Your task to perform on an android device: open the mobile data screen to see how much data has been used Image 0: 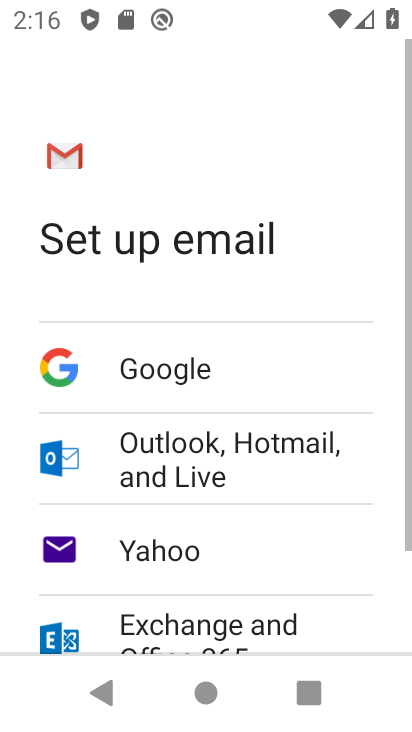
Step 0: press back button
Your task to perform on an android device: open the mobile data screen to see how much data has been used Image 1: 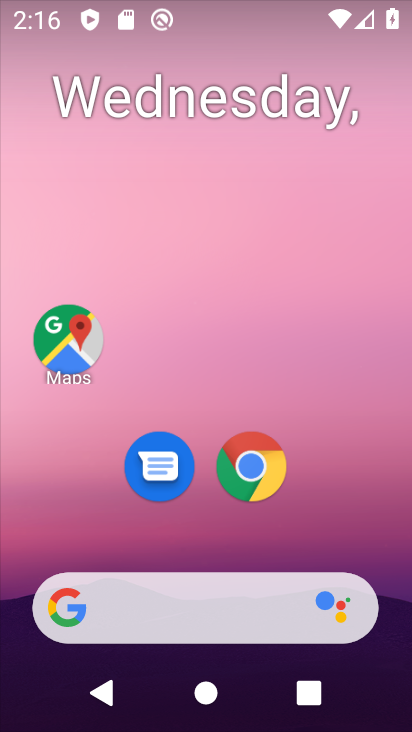
Step 1: drag from (384, 575) to (233, 8)
Your task to perform on an android device: open the mobile data screen to see how much data has been used Image 2: 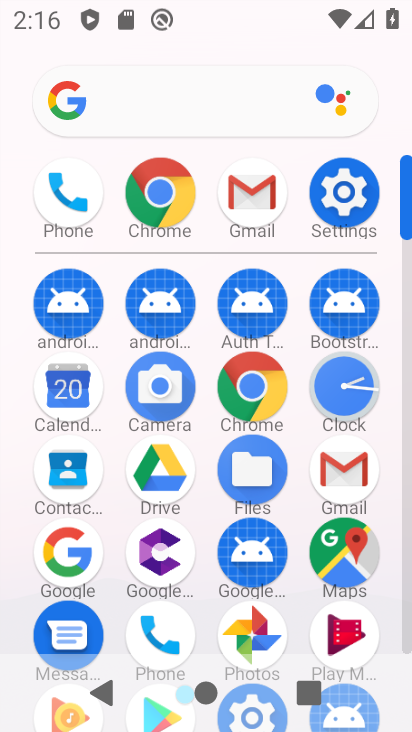
Step 2: drag from (15, 581) to (3, 271)
Your task to perform on an android device: open the mobile data screen to see how much data has been used Image 3: 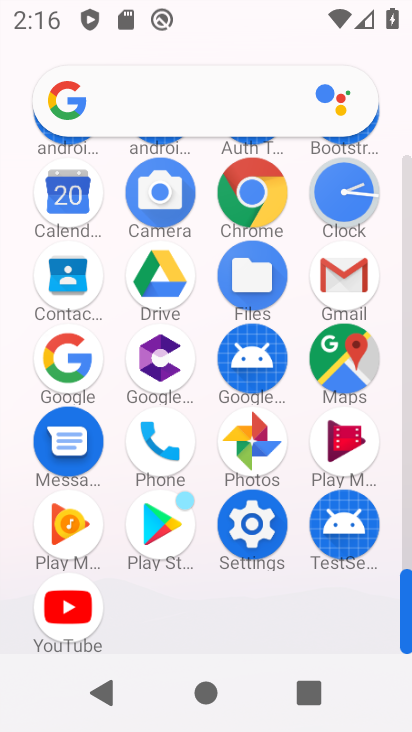
Step 3: click (252, 525)
Your task to perform on an android device: open the mobile data screen to see how much data has been used Image 4: 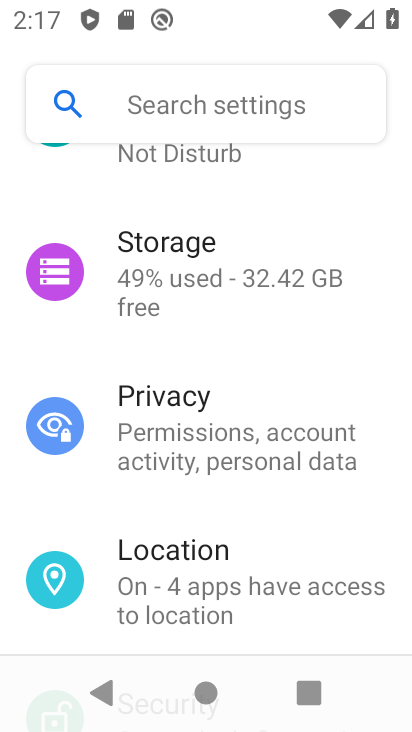
Step 4: drag from (201, 202) to (218, 629)
Your task to perform on an android device: open the mobile data screen to see how much data has been used Image 5: 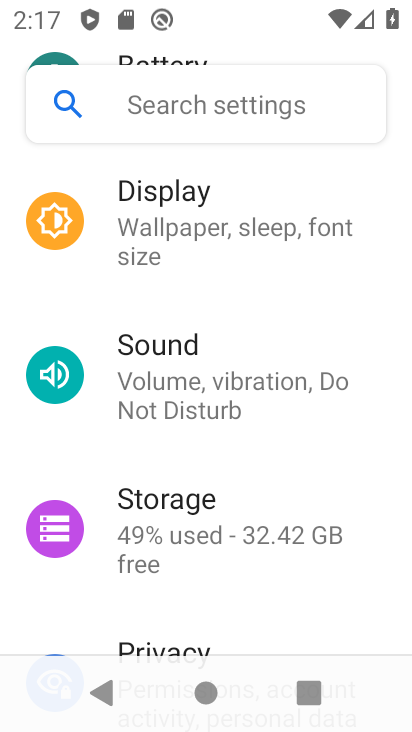
Step 5: drag from (254, 256) to (291, 577)
Your task to perform on an android device: open the mobile data screen to see how much data has been used Image 6: 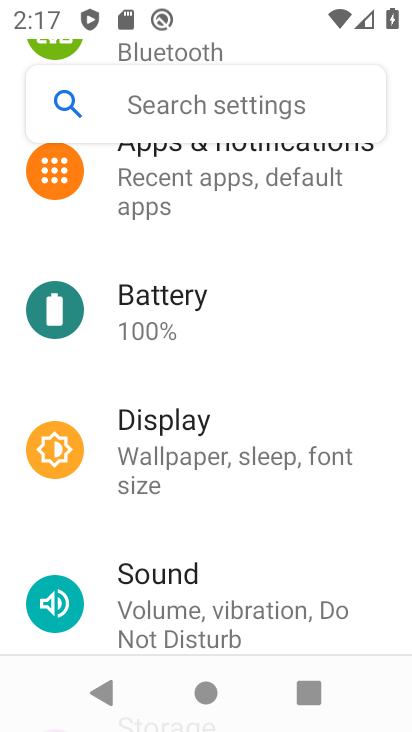
Step 6: drag from (284, 296) to (297, 603)
Your task to perform on an android device: open the mobile data screen to see how much data has been used Image 7: 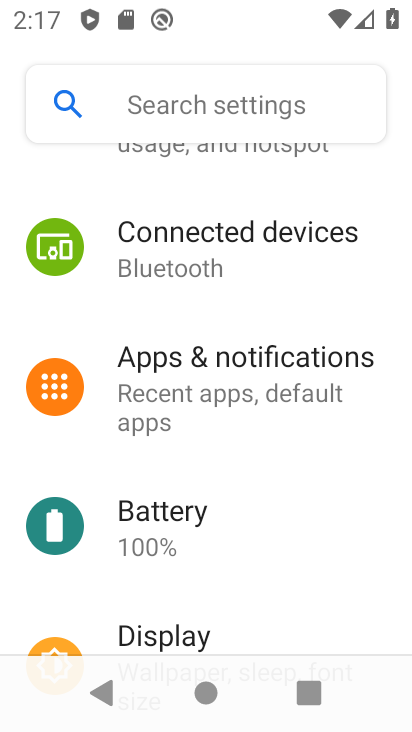
Step 7: drag from (227, 223) to (253, 523)
Your task to perform on an android device: open the mobile data screen to see how much data has been used Image 8: 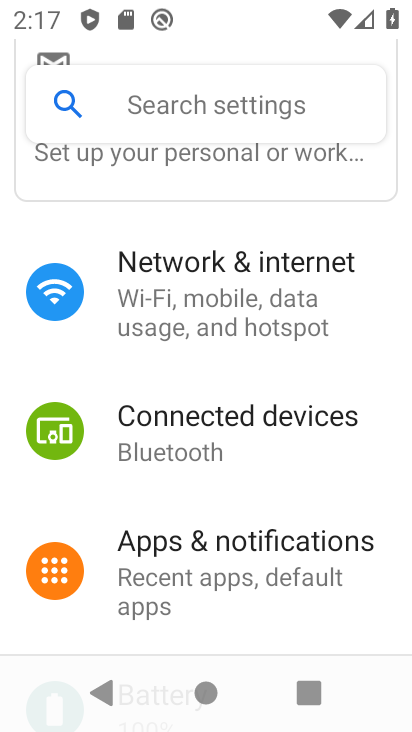
Step 8: click (262, 294)
Your task to perform on an android device: open the mobile data screen to see how much data has been used Image 9: 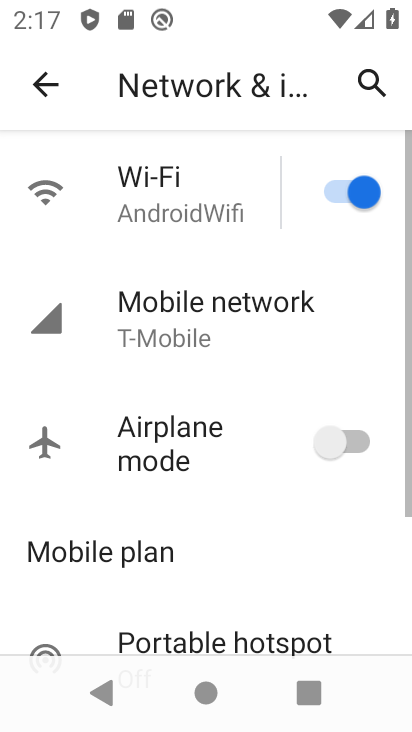
Step 9: click (234, 313)
Your task to perform on an android device: open the mobile data screen to see how much data has been used Image 10: 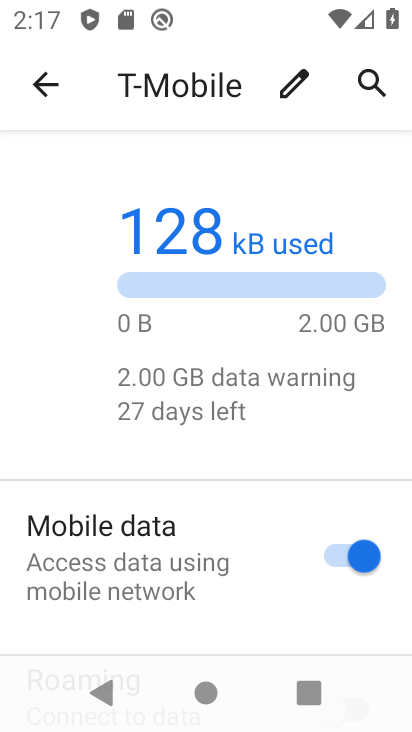
Step 10: task complete